Your task to perform on an android device: Find coffee shops on Maps Image 0: 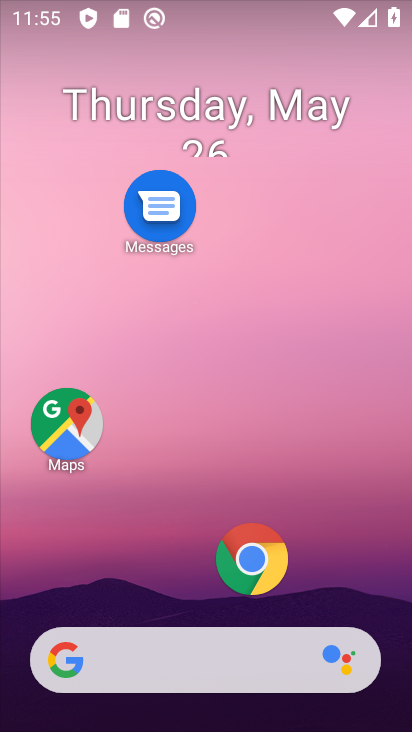
Step 0: press home button
Your task to perform on an android device: Find coffee shops on Maps Image 1: 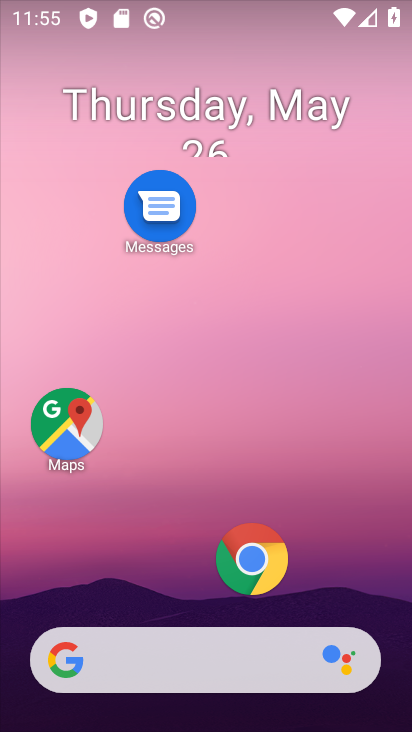
Step 1: drag from (205, 604) to (193, 75)
Your task to perform on an android device: Find coffee shops on Maps Image 2: 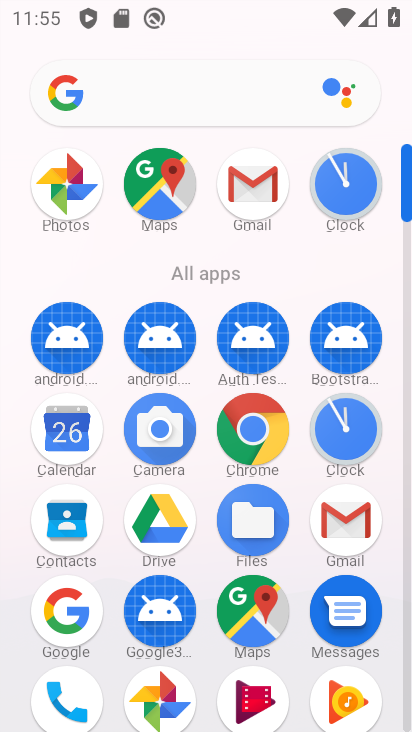
Step 2: click (256, 604)
Your task to perform on an android device: Find coffee shops on Maps Image 3: 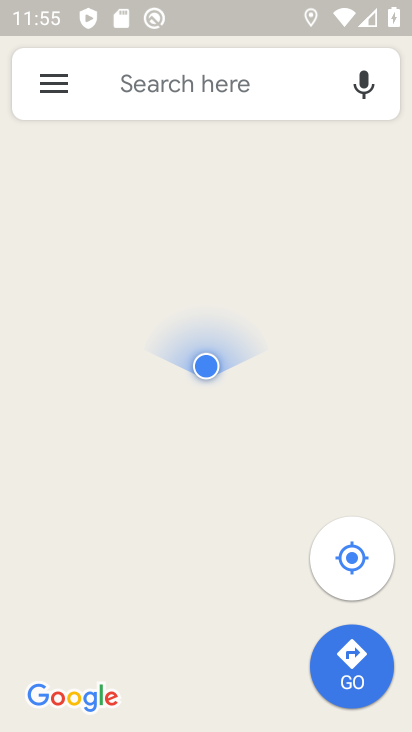
Step 3: click (159, 72)
Your task to perform on an android device: Find coffee shops on Maps Image 4: 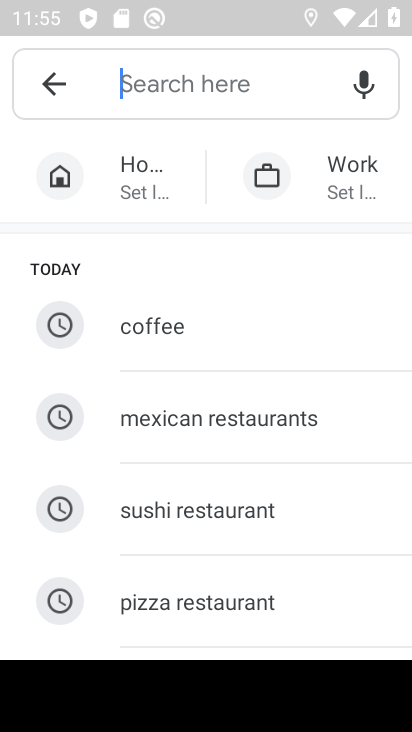
Step 4: click (188, 333)
Your task to perform on an android device: Find coffee shops on Maps Image 5: 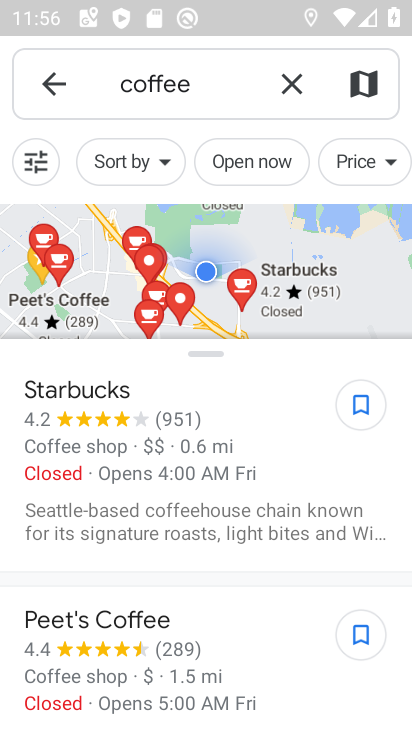
Step 5: task complete